Your task to perform on an android device: Go to Amazon Image 0: 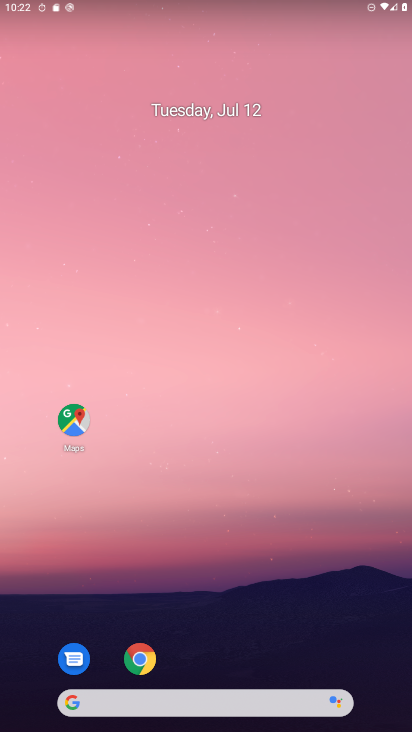
Step 0: click (141, 659)
Your task to perform on an android device: Go to Amazon Image 1: 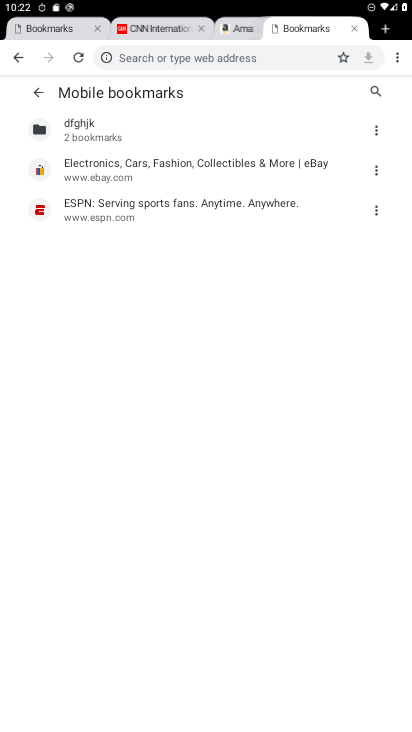
Step 1: click (396, 64)
Your task to perform on an android device: Go to Amazon Image 2: 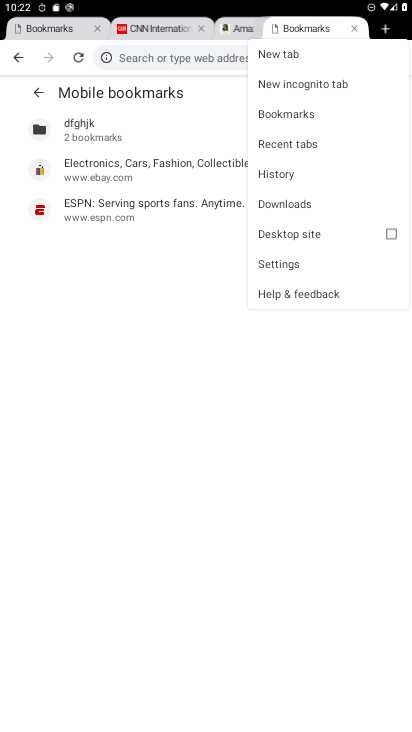
Step 2: click (267, 53)
Your task to perform on an android device: Go to Amazon Image 3: 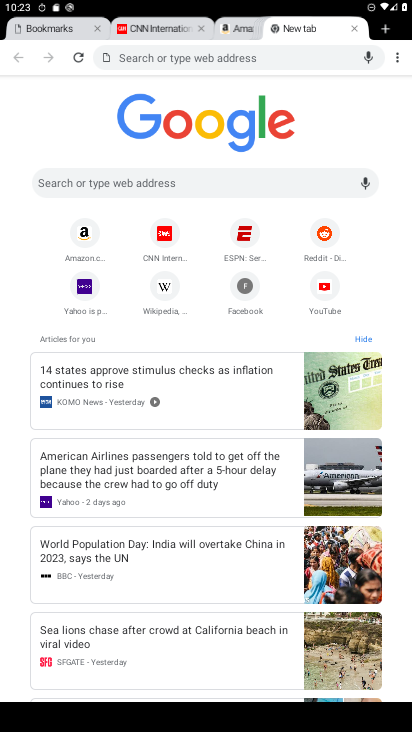
Step 3: click (85, 236)
Your task to perform on an android device: Go to Amazon Image 4: 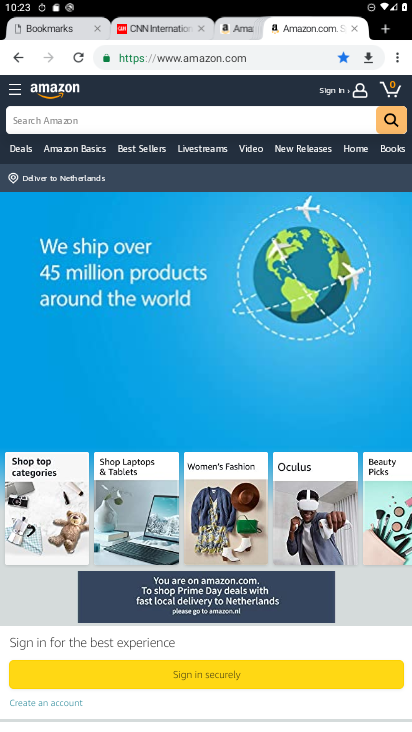
Step 4: task complete